Your task to perform on an android device: Set the phone to "Do not disturb". Image 0: 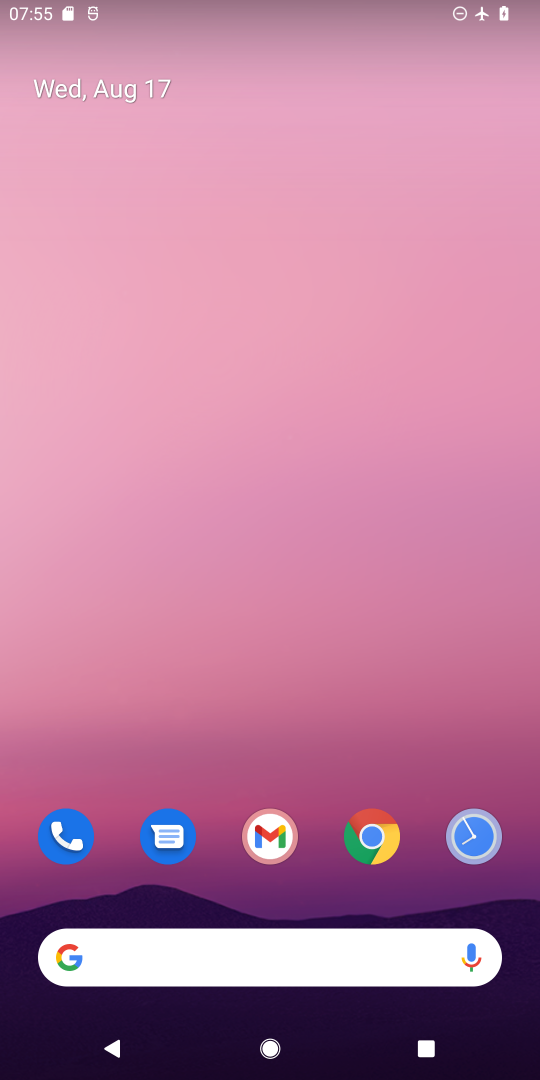
Step 0: click (238, 885)
Your task to perform on an android device: Set the phone to "Do not disturb". Image 1: 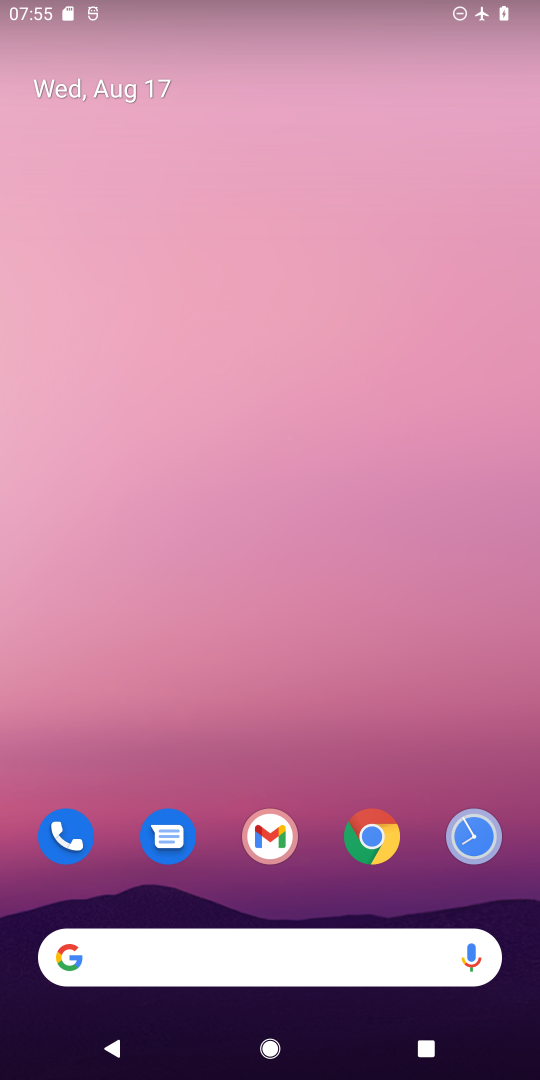
Step 1: task complete